Your task to perform on an android device: Open accessibility settings Image 0: 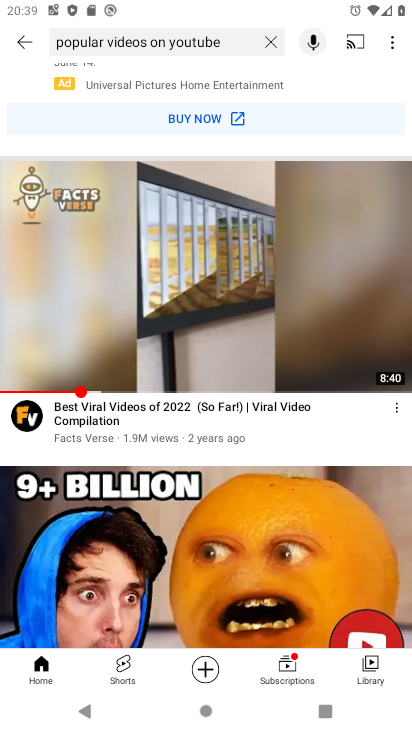
Step 0: press home button
Your task to perform on an android device: Open accessibility settings Image 1: 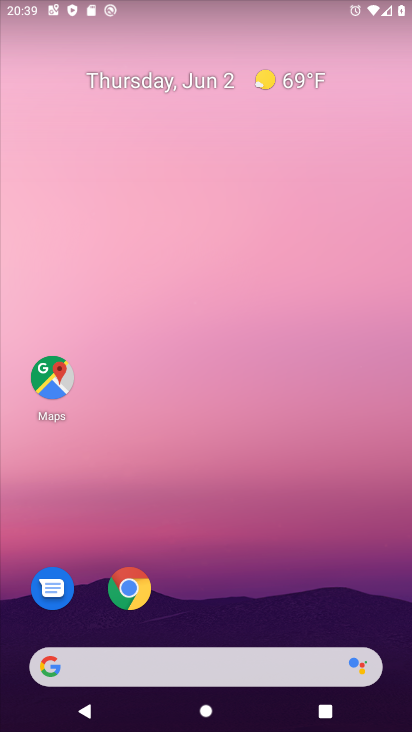
Step 1: drag from (232, 717) to (245, 0)
Your task to perform on an android device: Open accessibility settings Image 2: 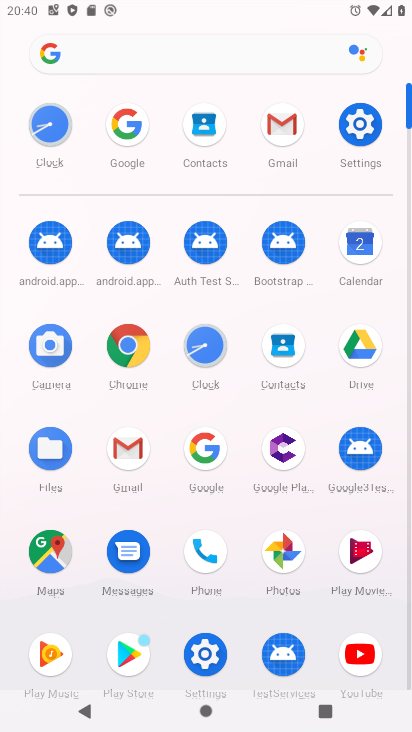
Step 2: click (357, 181)
Your task to perform on an android device: Open accessibility settings Image 3: 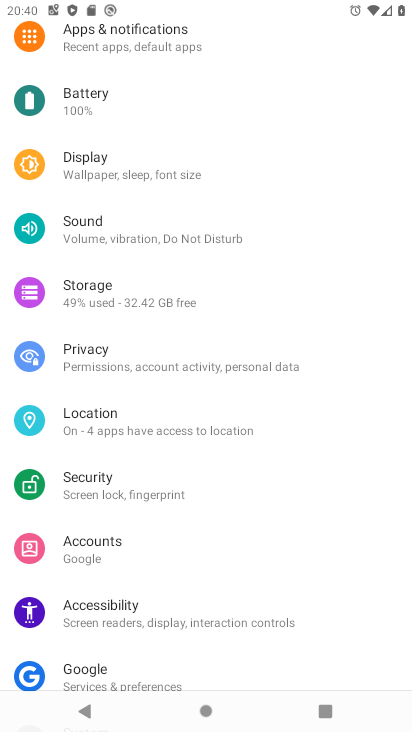
Step 3: click (94, 610)
Your task to perform on an android device: Open accessibility settings Image 4: 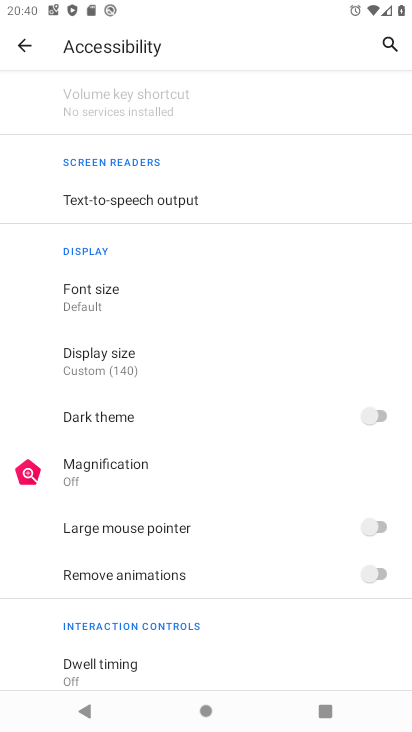
Step 4: task complete